Your task to perform on an android device: turn off improve location accuracy Image 0: 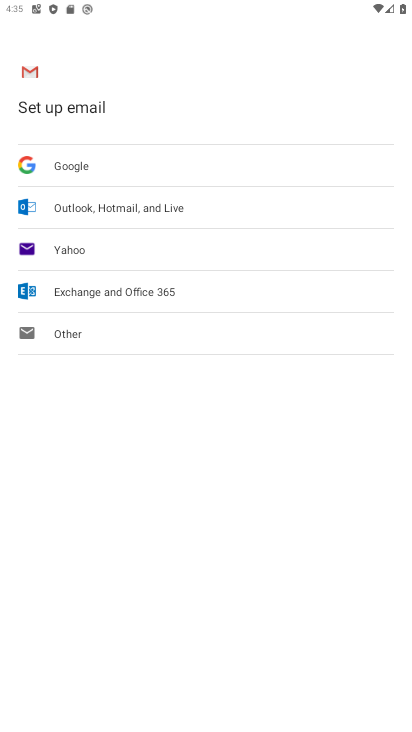
Step 0: press home button
Your task to perform on an android device: turn off improve location accuracy Image 1: 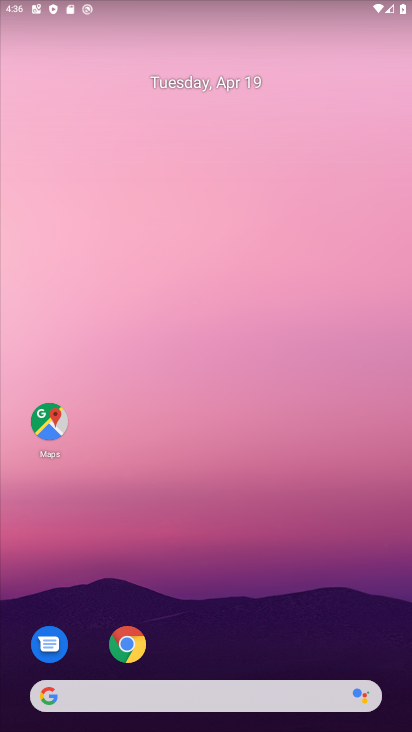
Step 1: drag from (324, 490) to (314, 266)
Your task to perform on an android device: turn off improve location accuracy Image 2: 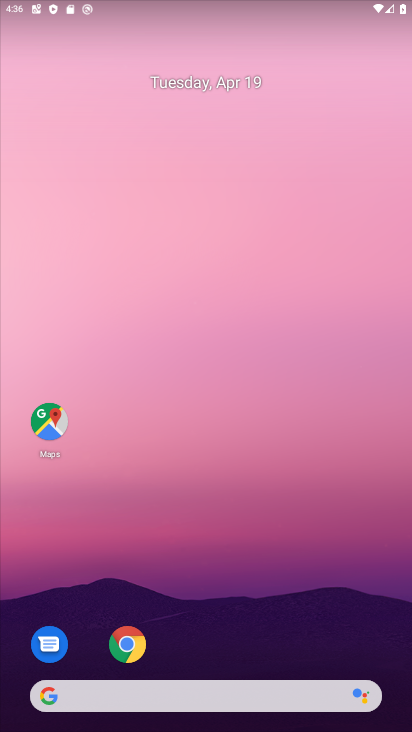
Step 2: drag from (228, 634) to (214, 377)
Your task to perform on an android device: turn off improve location accuracy Image 3: 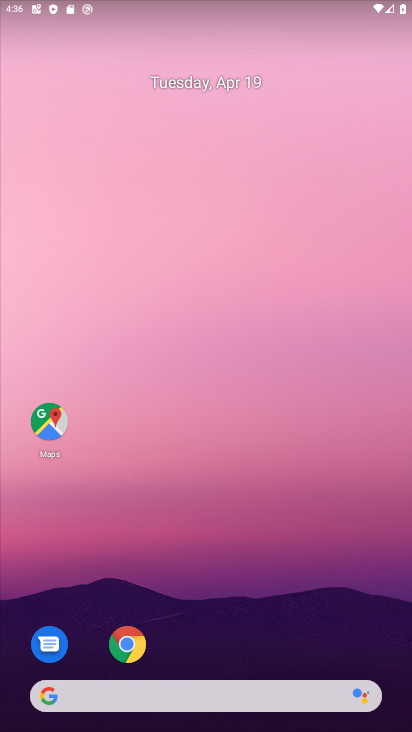
Step 3: drag from (271, 622) to (249, 176)
Your task to perform on an android device: turn off improve location accuracy Image 4: 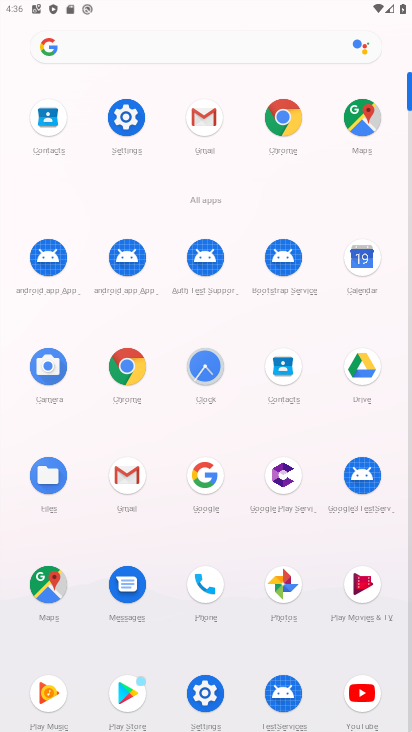
Step 4: click (201, 689)
Your task to perform on an android device: turn off improve location accuracy Image 5: 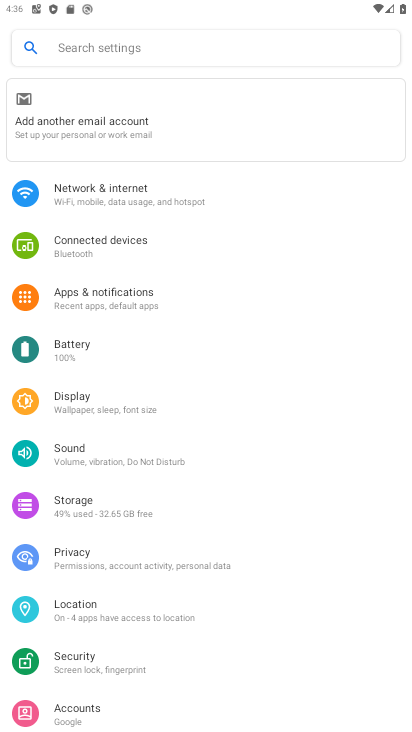
Step 5: click (84, 610)
Your task to perform on an android device: turn off improve location accuracy Image 6: 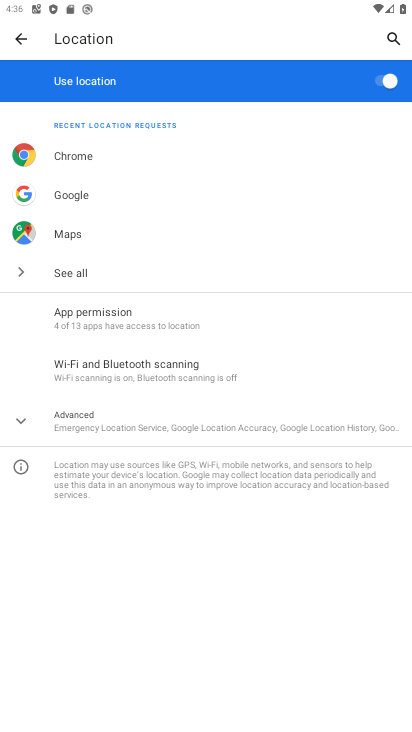
Step 6: click (33, 420)
Your task to perform on an android device: turn off improve location accuracy Image 7: 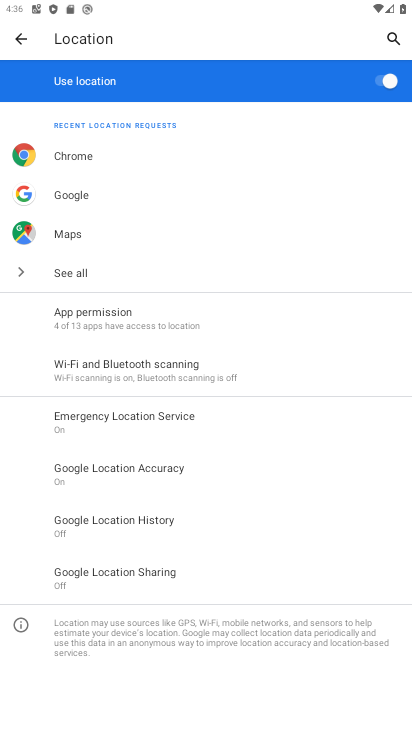
Step 7: click (94, 473)
Your task to perform on an android device: turn off improve location accuracy Image 8: 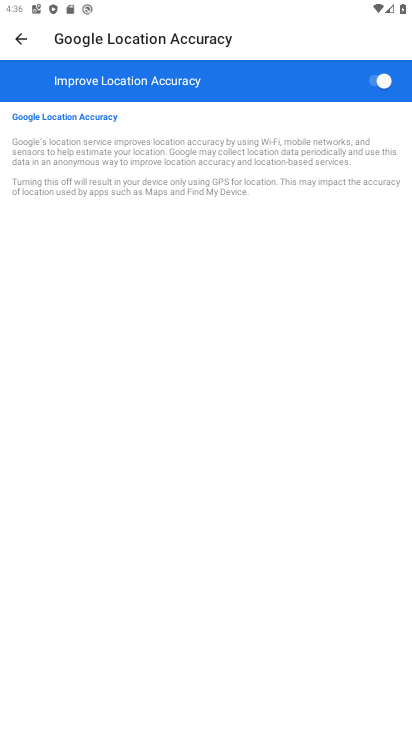
Step 8: click (379, 79)
Your task to perform on an android device: turn off improve location accuracy Image 9: 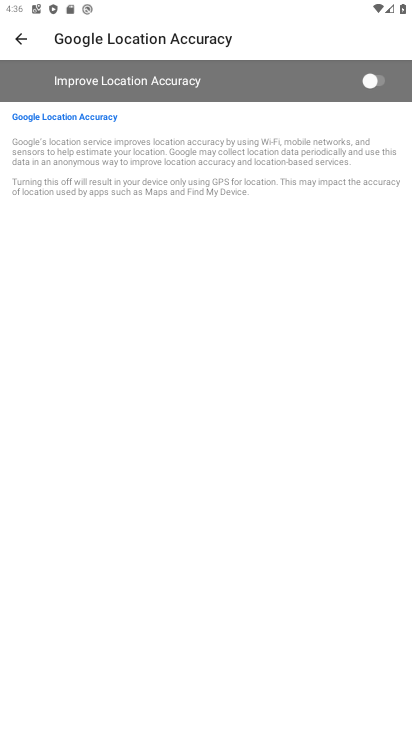
Step 9: task complete